Your task to perform on an android device: Open Maps and search for coffee Image 0: 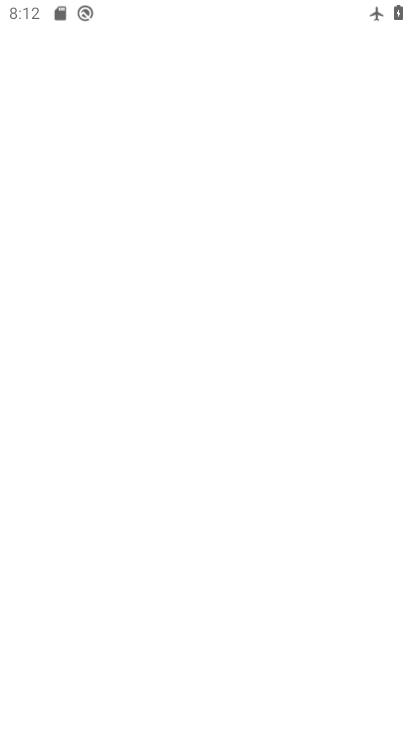
Step 0: drag from (212, 625) to (224, 84)
Your task to perform on an android device: Open Maps and search for coffee Image 1: 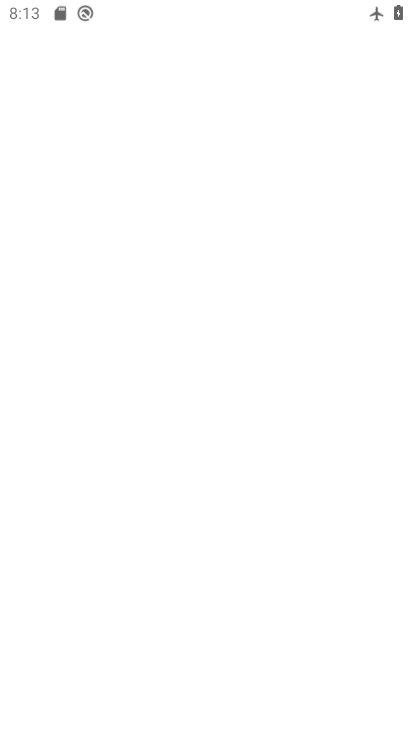
Step 1: press home button
Your task to perform on an android device: Open Maps and search for coffee Image 2: 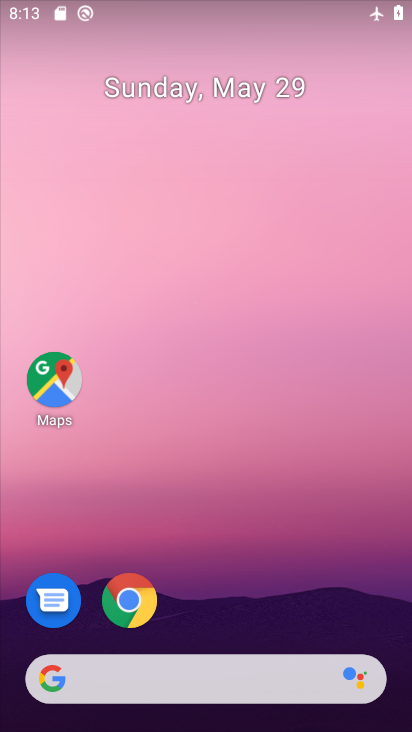
Step 2: click (63, 359)
Your task to perform on an android device: Open Maps and search for coffee Image 3: 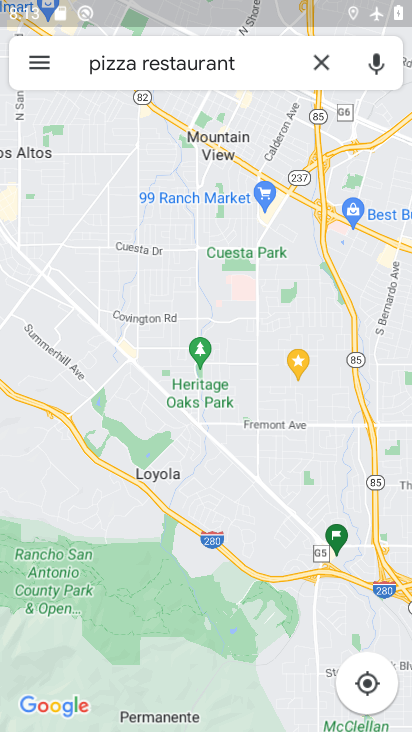
Step 3: click (325, 54)
Your task to perform on an android device: Open Maps and search for coffee Image 4: 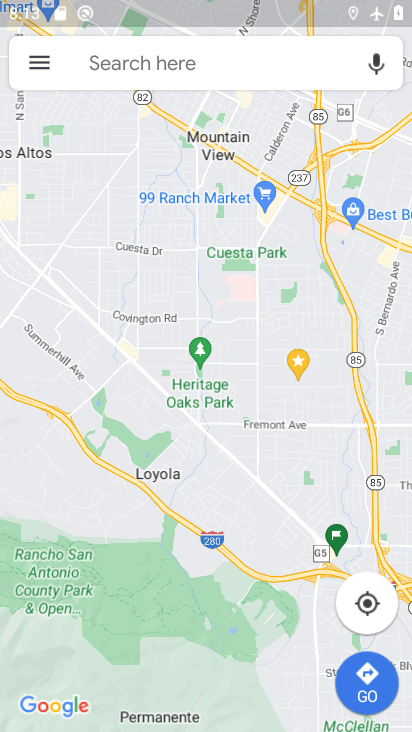
Step 4: drag from (326, 5) to (317, 467)
Your task to perform on an android device: Open Maps and search for coffee Image 5: 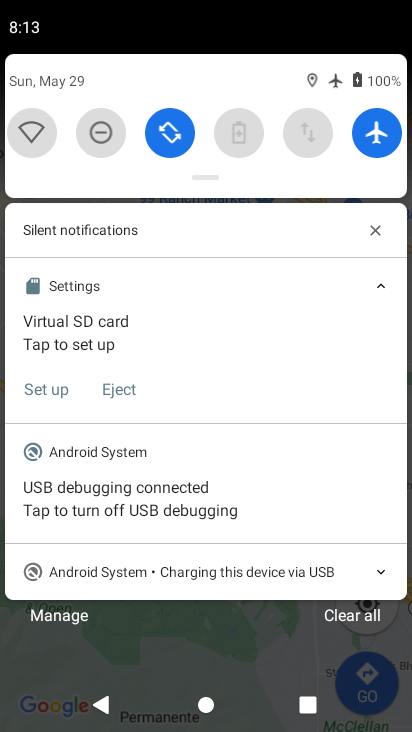
Step 5: click (382, 128)
Your task to perform on an android device: Open Maps and search for coffee Image 6: 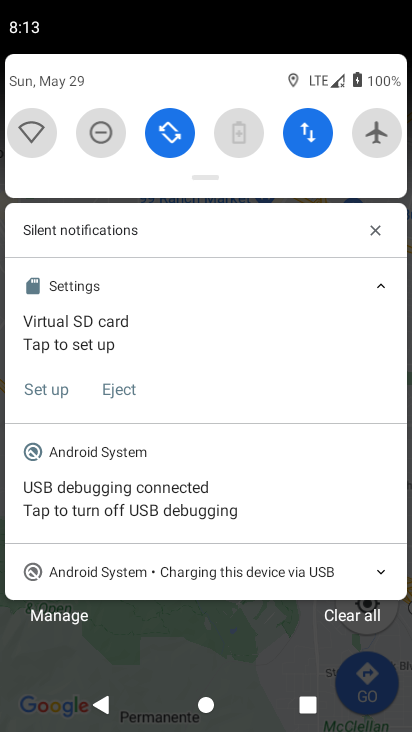
Step 6: click (343, 608)
Your task to perform on an android device: Open Maps and search for coffee Image 7: 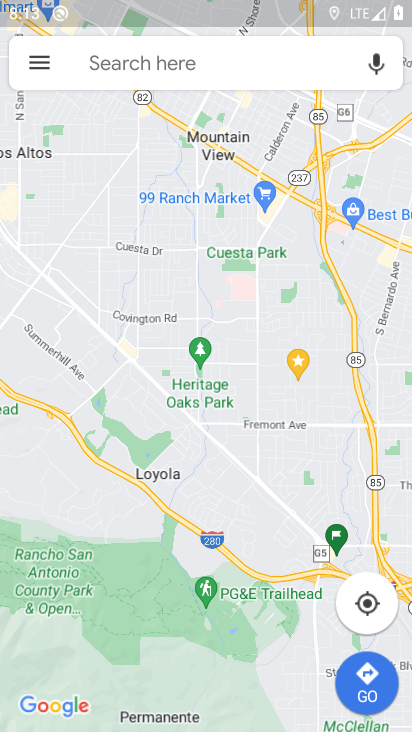
Step 7: click (173, 68)
Your task to perform on an android device: Open Maps and search for coffee Image 8: 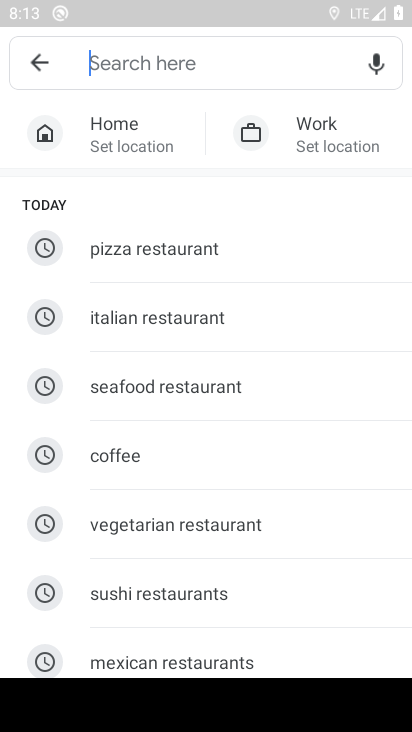
Step 8: type "coffee"
Your task to perform on an android device: Open Maps and search for coffee Image 9: 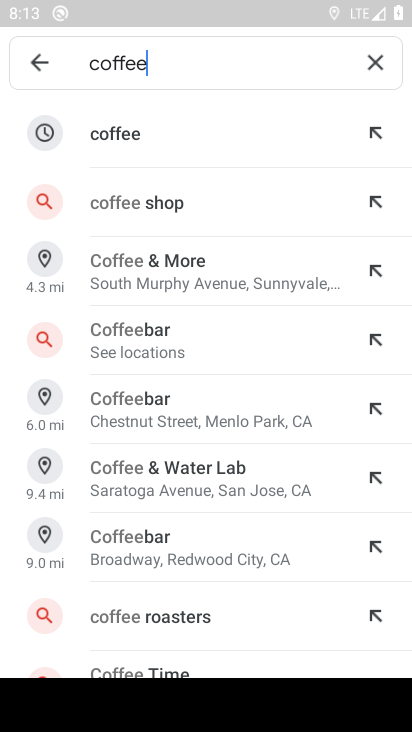
Step 9: click (141, 147)
Your task to perform on an android device: Open Maps and search for coffee Image 10: 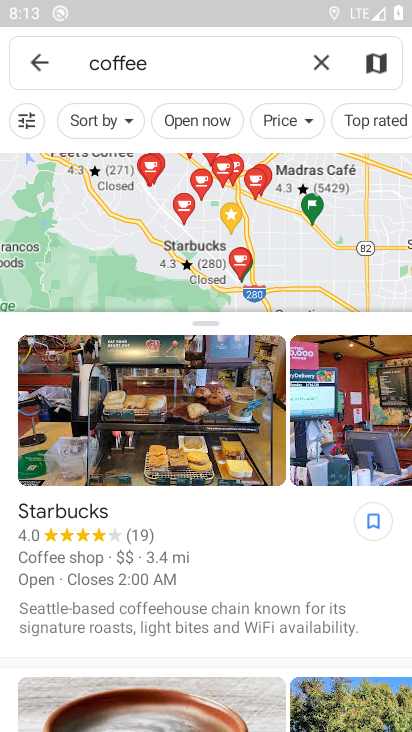
Step 10: task complete